Your task to perform on an android device: turn off wifi Image 0: 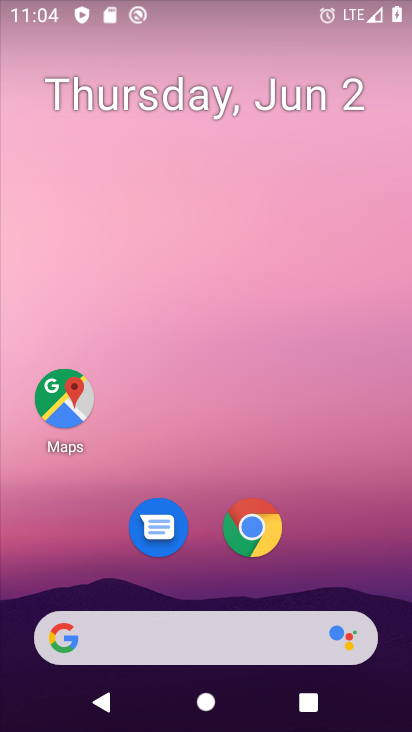
Step 0: drag from (209, 624) to (297, 228)
Your task to perform on an android device: turn off wifi Image 1: 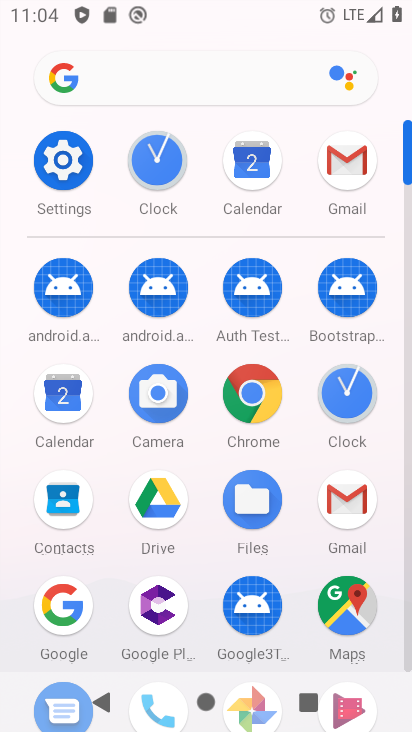
Step 1: click (72, 174)
Your task to perform on an android device: turn off wifi Image 2: 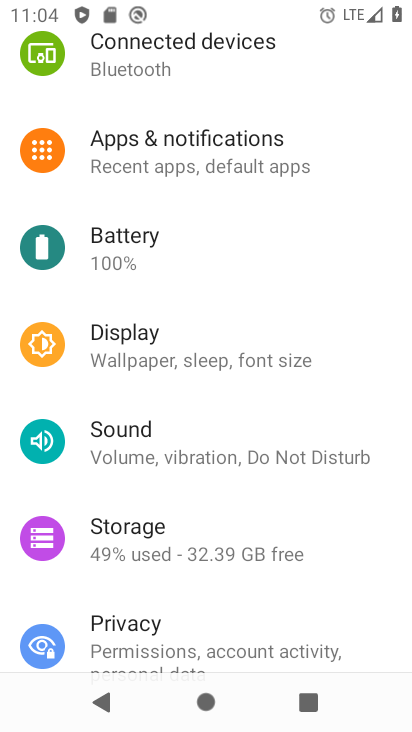
Step 2: drag from (159, 161) to (178, 488)
Your task to perform on an android device: turn off wifi Image 3: 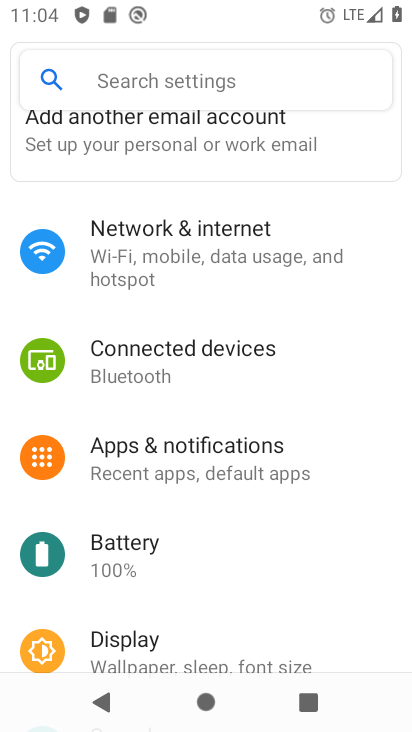
Step 3: click (149, 277)
Your task to perform on an android device: turn off wifi Image 4: 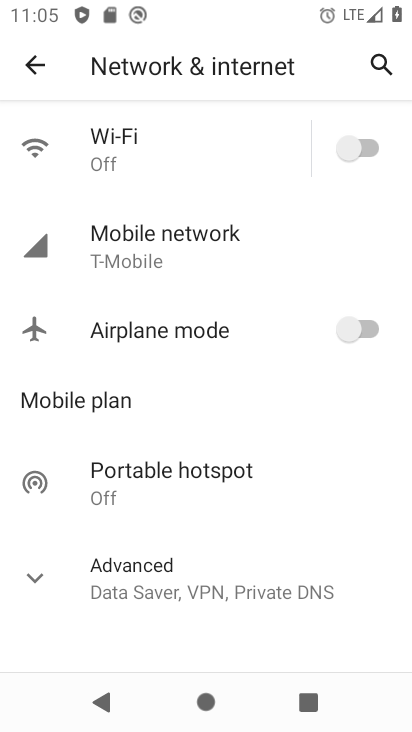
Step 4: task complete